Your task to perform on an android device: check storage Image 0: 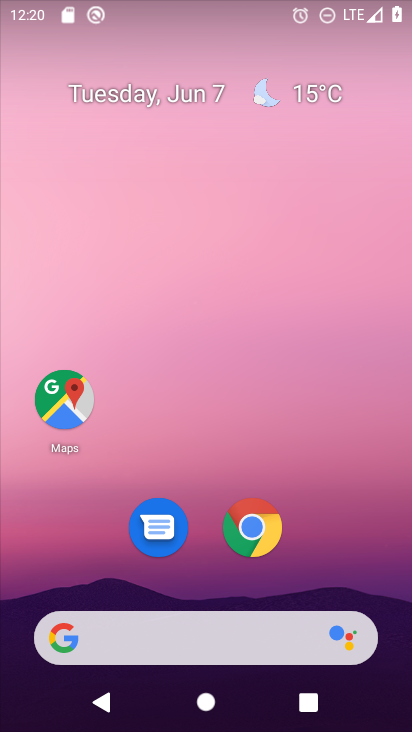
Step 0: drag from (367, 571) to (323, 62)
Your task to perform on an android device: check storage Image 1: 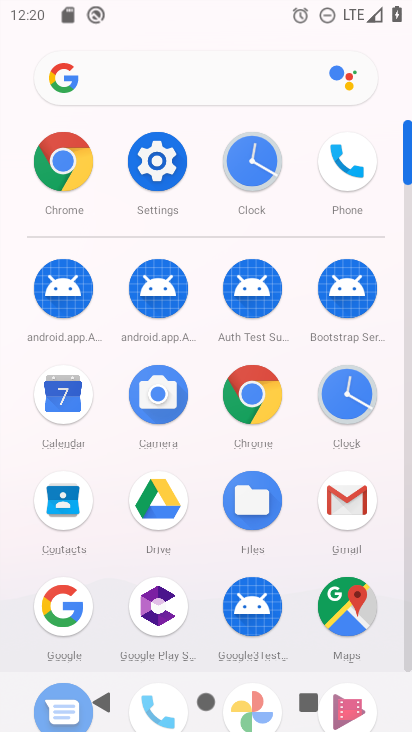
Step 1: click (153, 170)
Your task to perform on an android device: check storage Image 2: 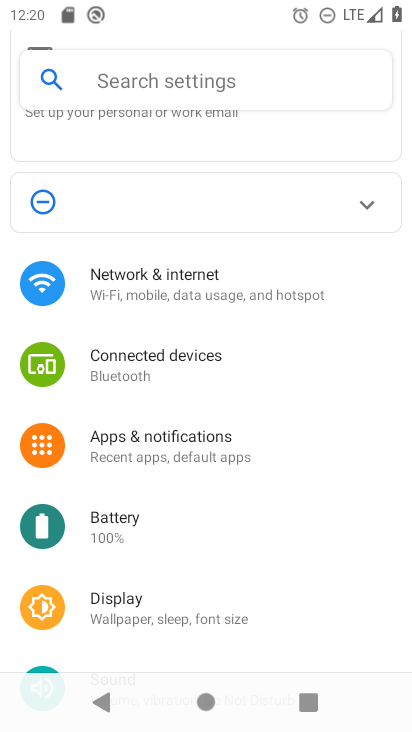
Step 2: drag from (330, 507) to (328, 334)
Your task to perform on an android device: check storage Image 3: 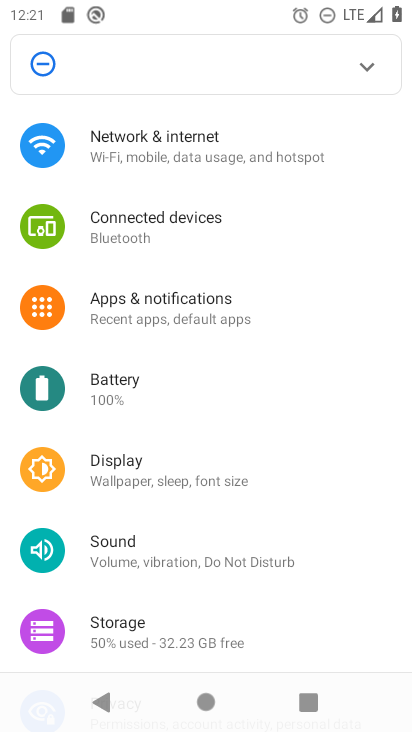
Step 3: drag from (323, 492) to (321, 319)
Your task to perform on an android device: check storage Image 4: 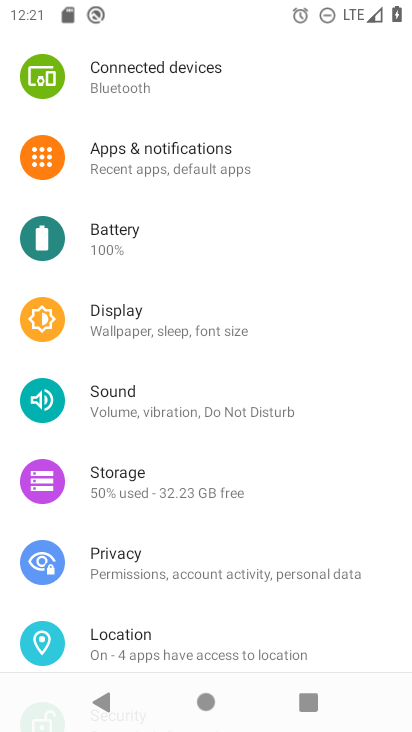
Step 4: drag from (313, 486) to (312, 244)
Your task to perform on an android device: check storage Image 5: 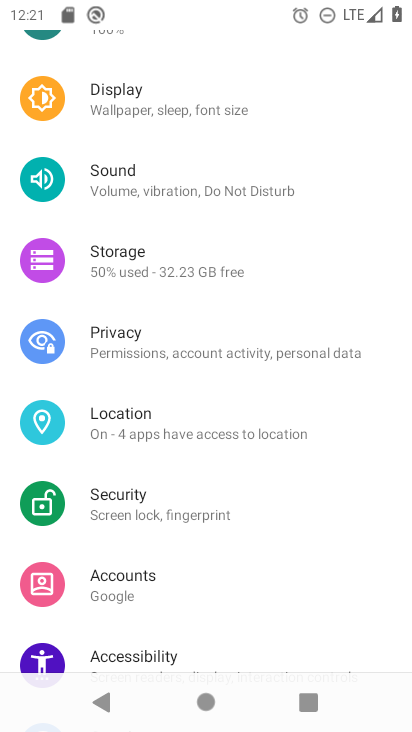
Step 5: drag from (324, 444) to (327, 270)
Your task to perform on an android device: check storage Image 6: 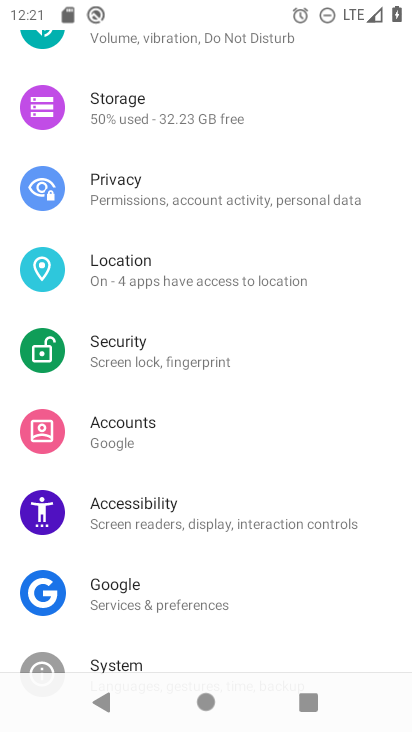
Step 6: drag from (333, 251) to (335, 376)
Your task to perform on an android device: check storage Image 7: 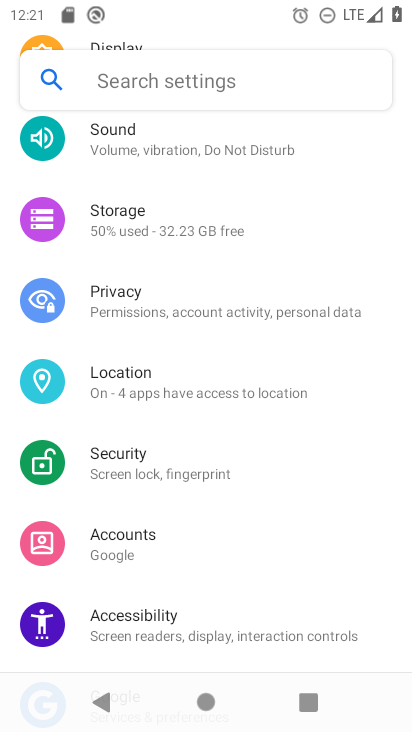
Step 7: drag from (314, 212) to (313, 366)
Your task to perform on an android device: check storage Image 8: 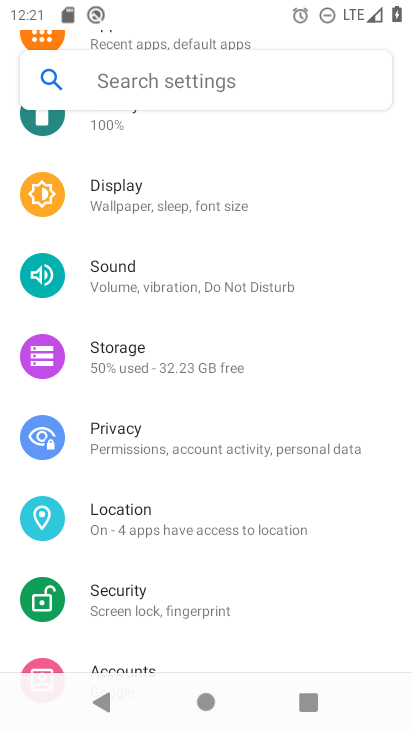
Step 8: click (204, 365)
Your task to perform on an android device: check storage Image 9: 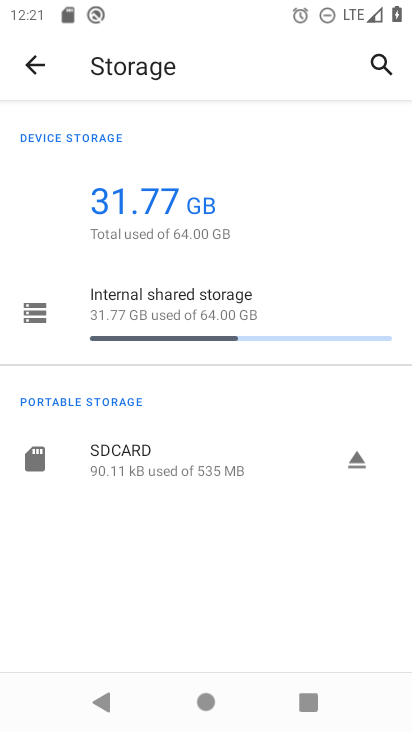
Step 9: task complete